Your task to perform on an android device: What is the recent news? Image 0: 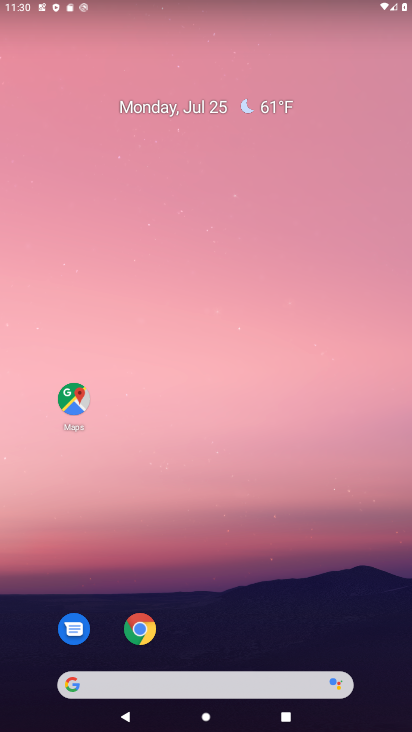
Step 0: drag from (236, 631) to (239, 238)
Your task to perform on an android device: What is the recent news? Image 1: 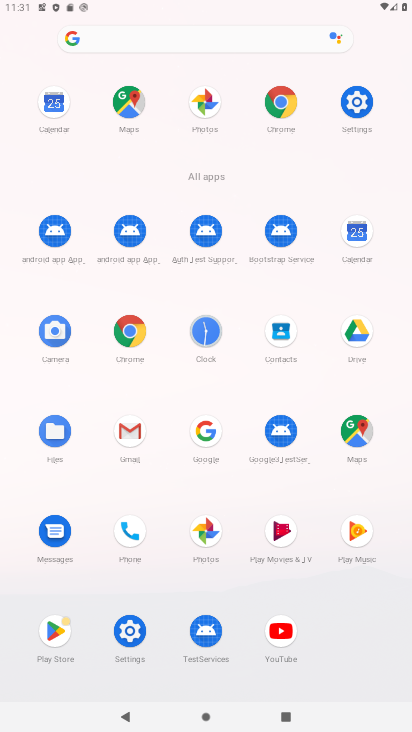
Step 1: click (219, 438)
Your task to perform on an android device: What is the recent news? Image 2: 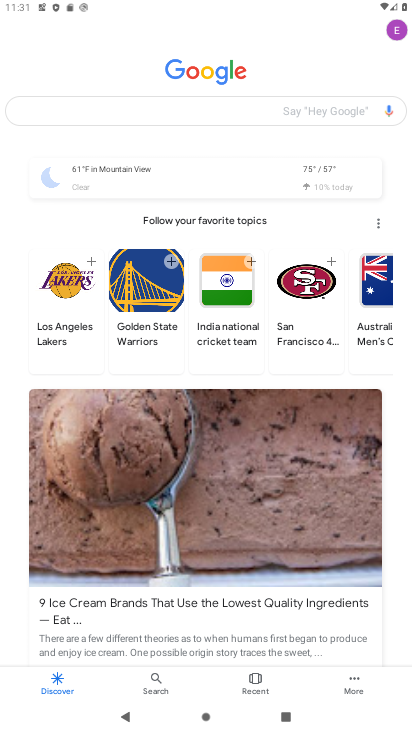
Step 2: click (175, 109)
Your task to perform on an android device: What is the recent news? Image 3: 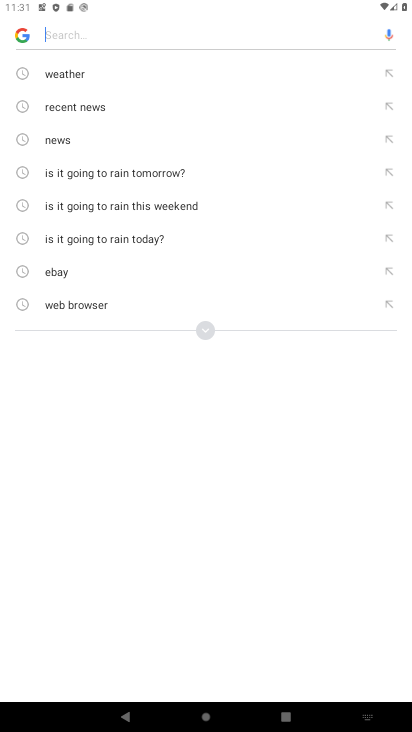
Step 3: click (72, 142)
Your task to perform on an android device: What is the recent news? Image 4: 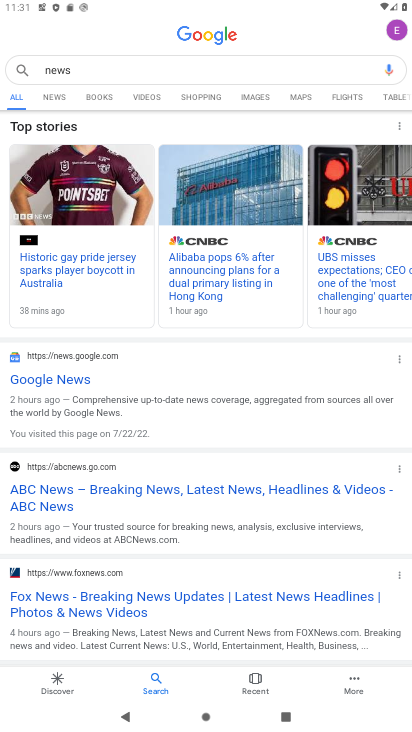
Step 4: click (56, 95)
Your task to perform on an android device: What is the recent news? Image 5: 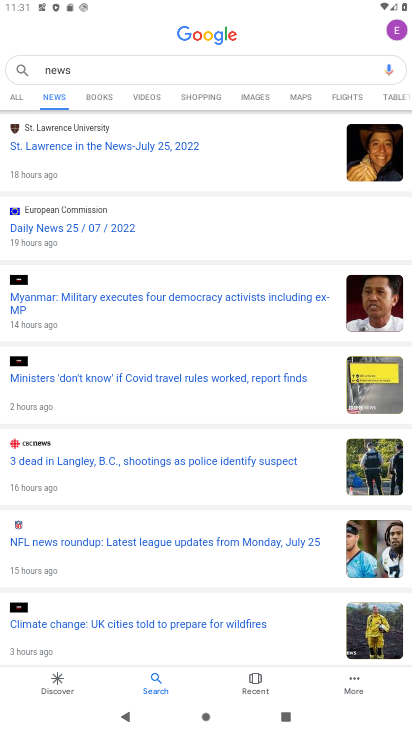
Step 5: task complete